Your task to perform on an android device: Open Android settings Image 0: 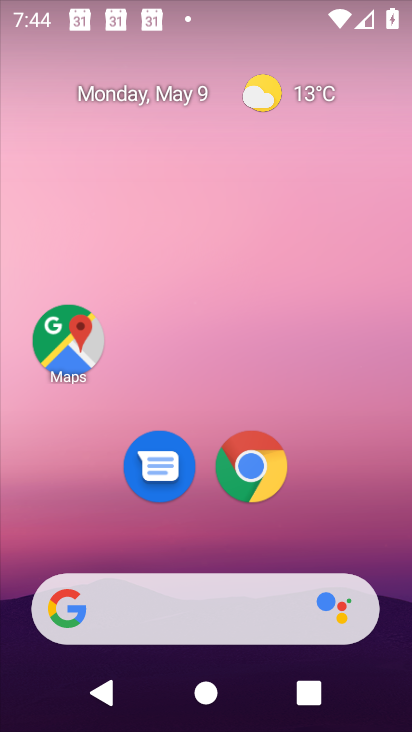
Step 0: drag from (342, 472) to (300, 183)
Your task to perform on an android device: Open Android settings Image 1: 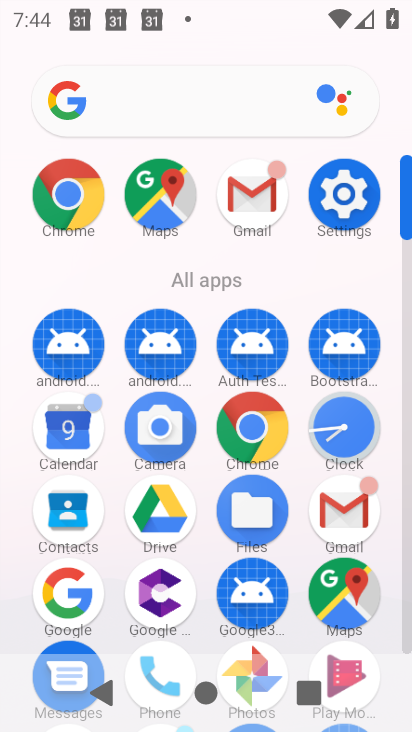
Step 1: click (341, 200)
Your task to perform on an android device: Open Android settings Image 2: 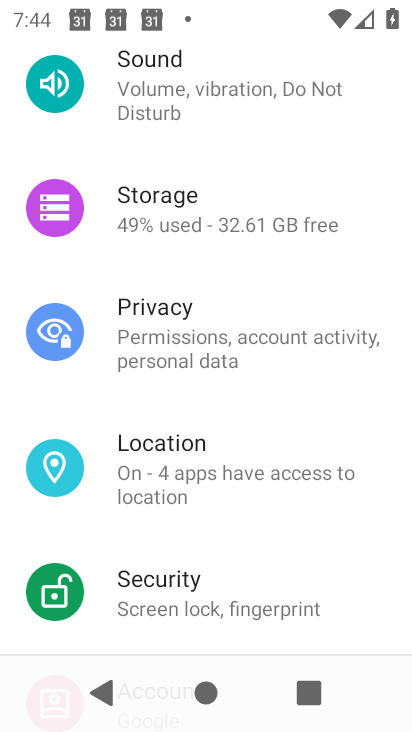
Step 2: click (177, 207)
Your task to perform on an android device: Open Android settings Image 3: 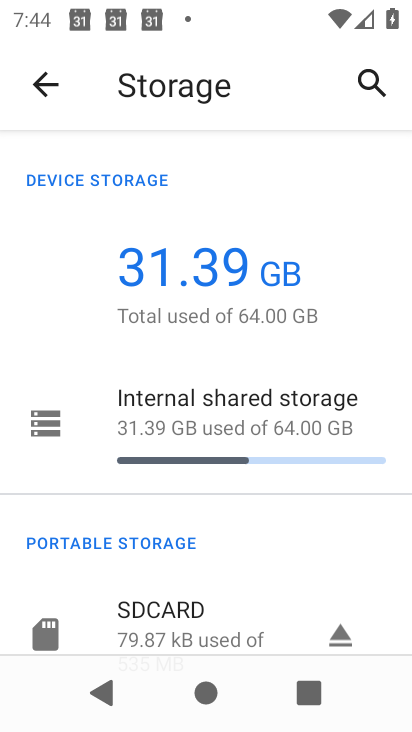
Step 3: press home button
Your task to perform on an android device: Open Android settings Image 4: 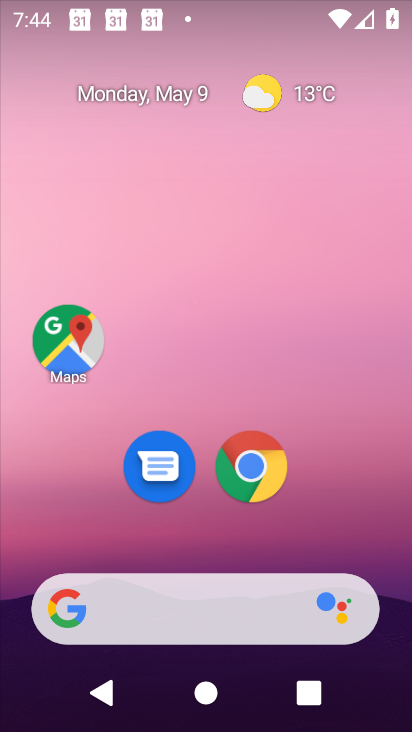
Step 4: drag from (311, 487) to (313, 212)
Your task to perform on an android device: Open Android settings Image 5: 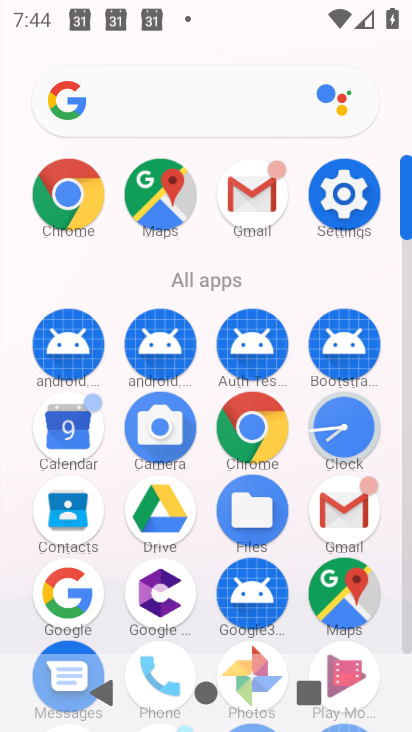
Step 5: click (353, 189)
Your task to perform on an android device: Open Android settings Image 6: 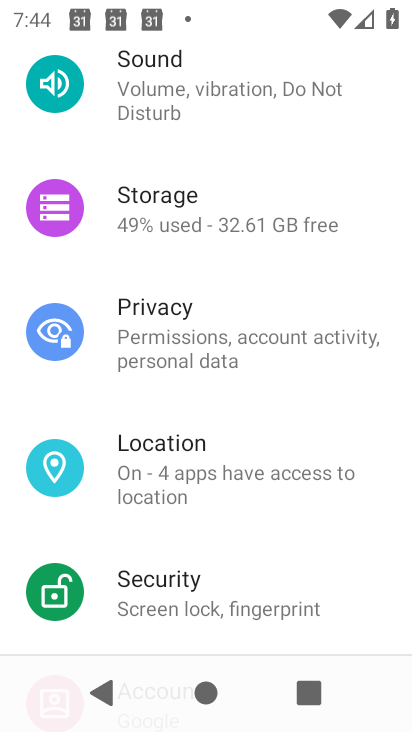
Step 6: task complete